Your task to perform on an android device: read, delete, or share a saved page in the chrome app Image 0: 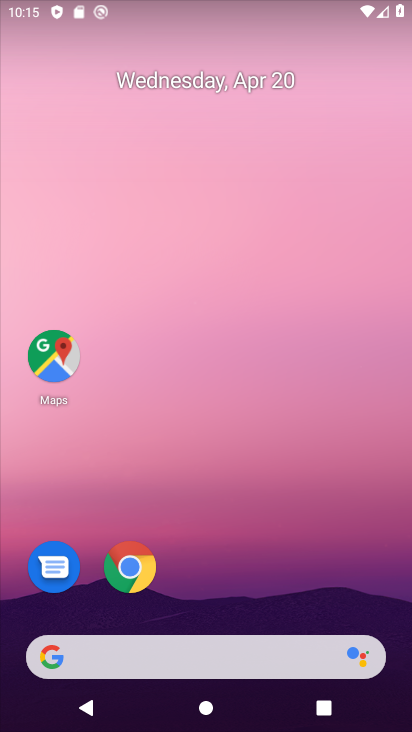
Step 0: click (131, 565)
Your task to perform on an android device: read, delete, or share a saved page in the chrome app Image 1: 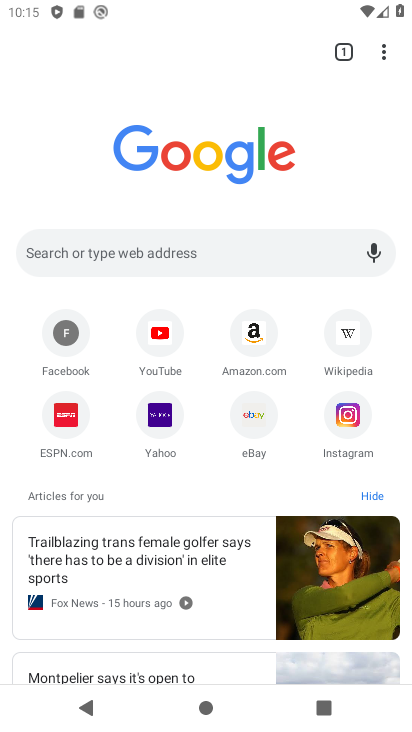
Step 1: click (384, 52)
Your task to perform on an android device: read, delete, or share a saved page in the chrome app Image 2: 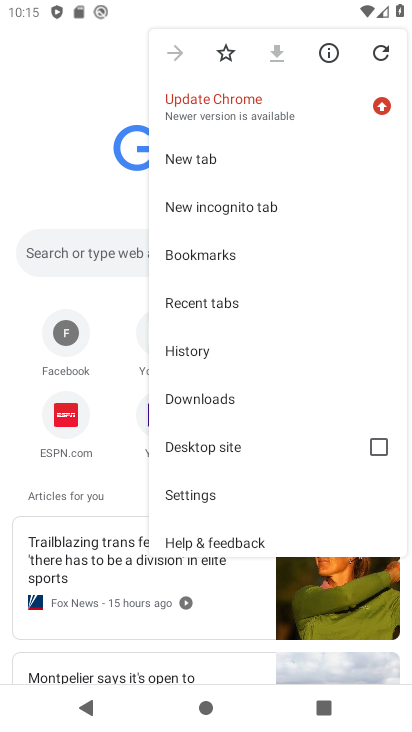
Step 2: click (215, 400)
Your task to perform on an android device: read, delete, or share a saved page in the chrome app Image 3: 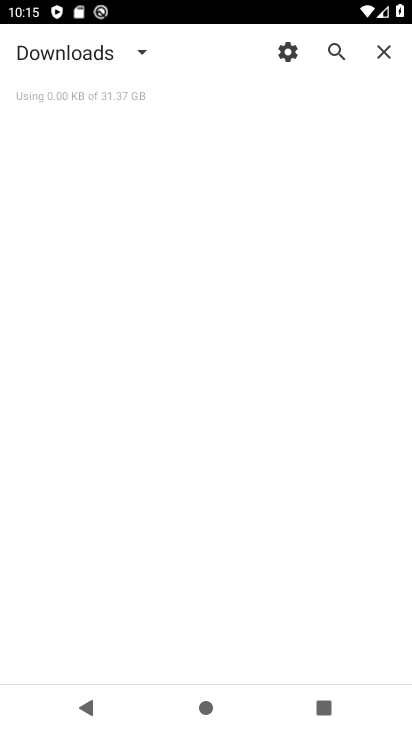
Step 3: click (142, 58)
Your task to perform on an android device: read, delete, or share a saved page in the chrome app Image 4: 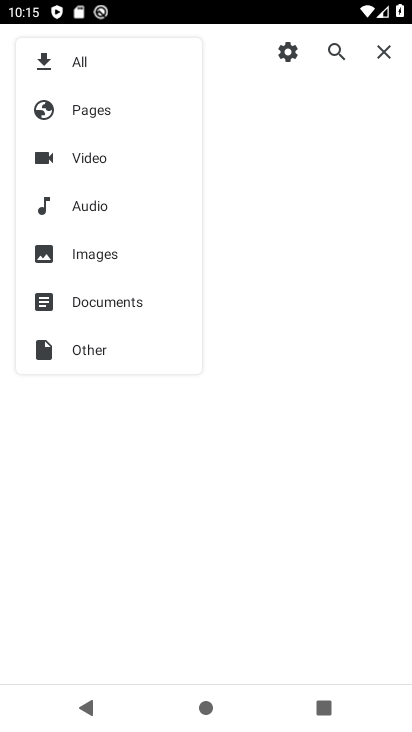
Step 4: click (110, 116)
Your task to perform on an android device: read, delete, or share a saved page in the chrome app Image 5: 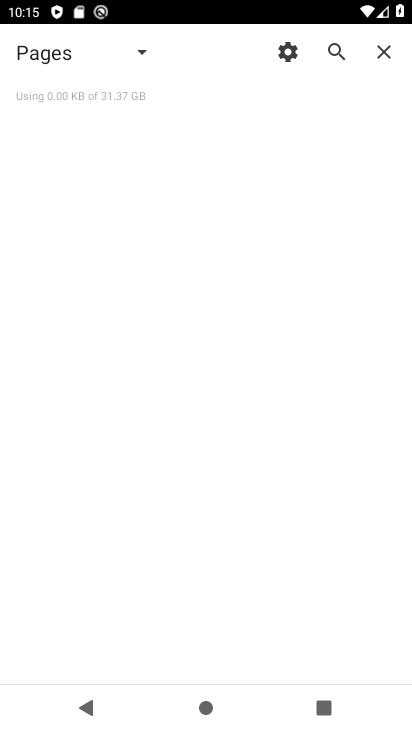
Step 5: task complete